Your task to perform on an android device: Go to privacy settings Image 0: 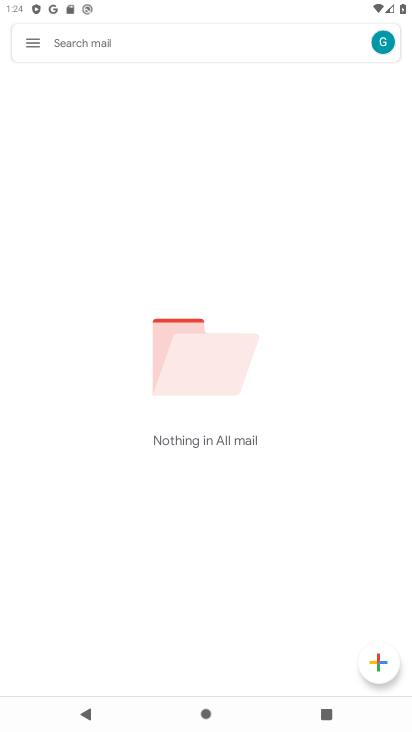
Step 0: press home button
Your task to perform on an android device: Go to privacy settings Image 1: 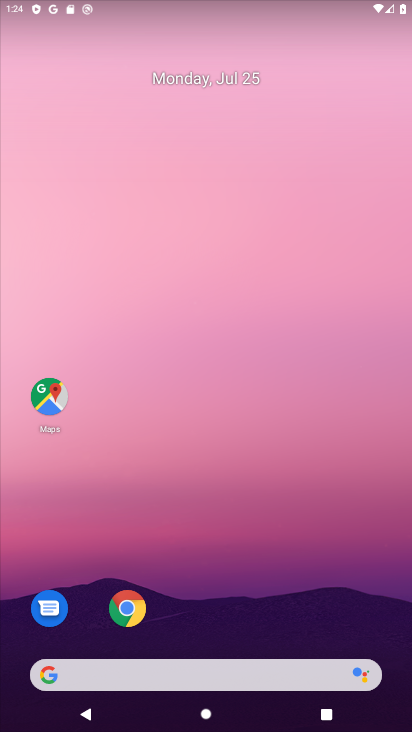
Step 1: drag from (161, 677) to (281, 85)
Your task to perform on an android device: Go to privacy settings Image 2: 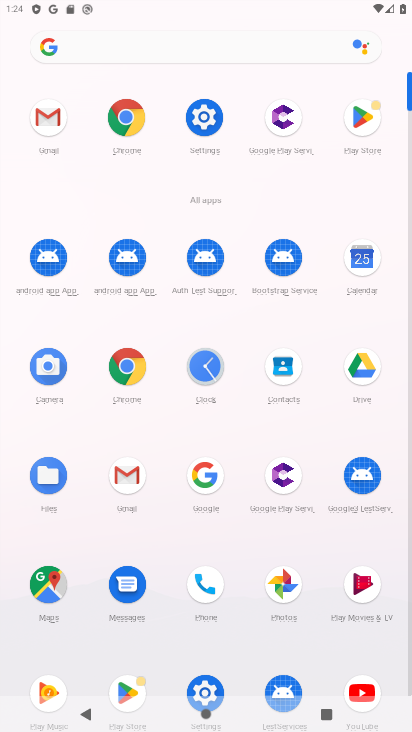
Step 2: click (205, 117)
Your task to perform on an android device: Go to privacy settings Image 3: 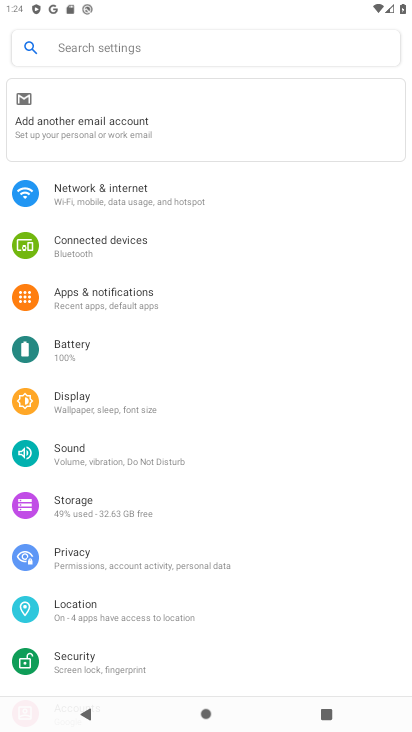
Step 3: click (67, 556)
Your task to perform on an android device: Go to privacy settings Image 4: 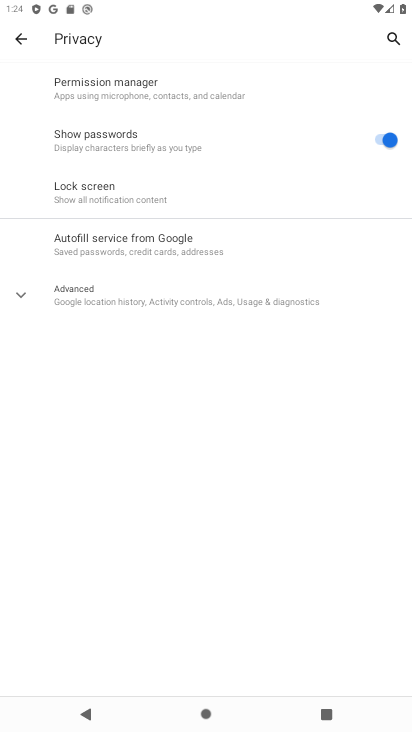
Step 4: task complete